Your task to perform on an android device: turn off airplane mode Image 0: 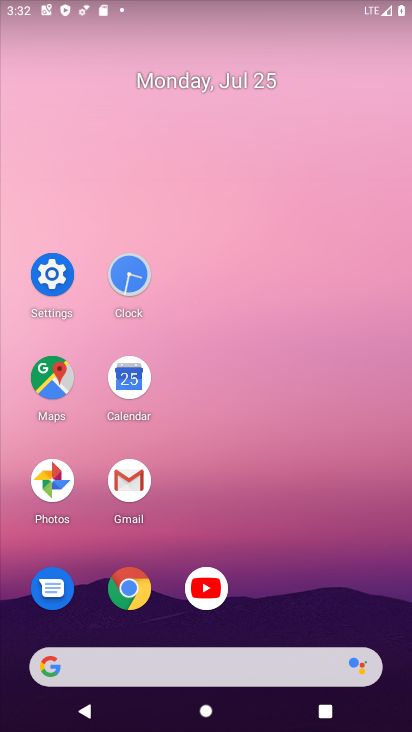
Step 0: drag from (312, 589) to (263, 177)
Your task to perform on an android device: turn off airplane mode Image 1: 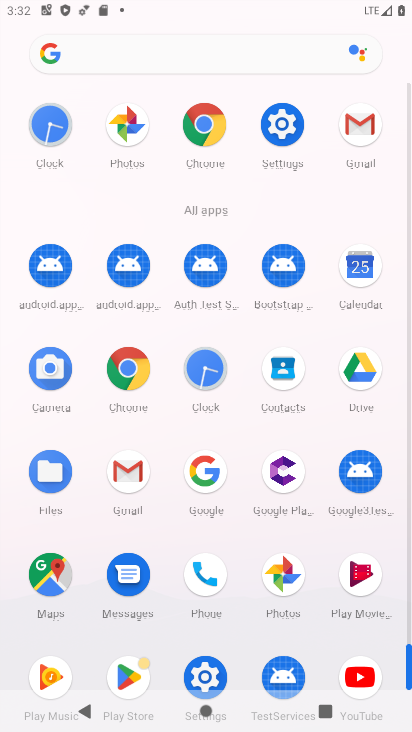
Step 1: click (282, 122)
Your task to perform on an android device: turn off airplane mode Image 2: 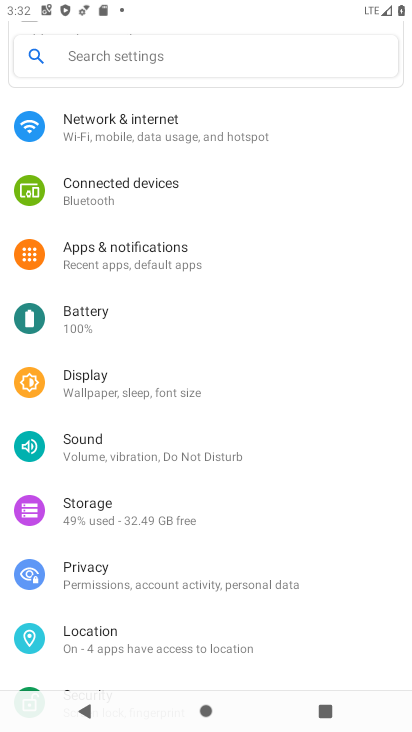
Step 2: click (112, 118)
Your task to perform on an android device: turn off airplane mode Image 3: 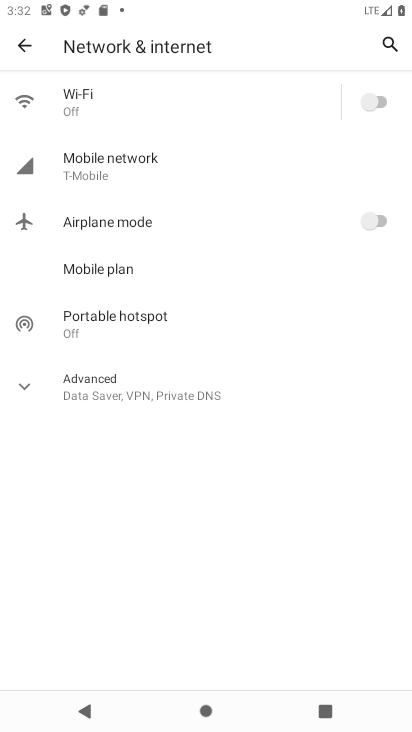
Step 3: task complete